Your task to perform on an android device: turn on data saver in the chrome app Image 0: 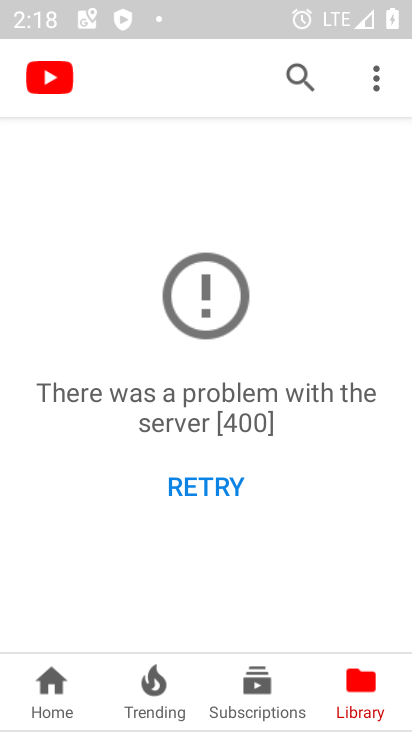
Step 0: press back button
Your task to perform on an android device: turn on data saver in the chrome app Image 1: 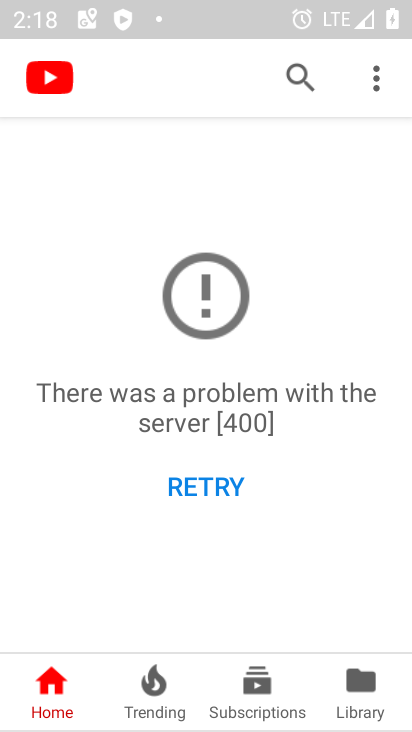
Step 1: press back button
Your task to perform on an android device: turn on data saver in the chrome app Image 2: 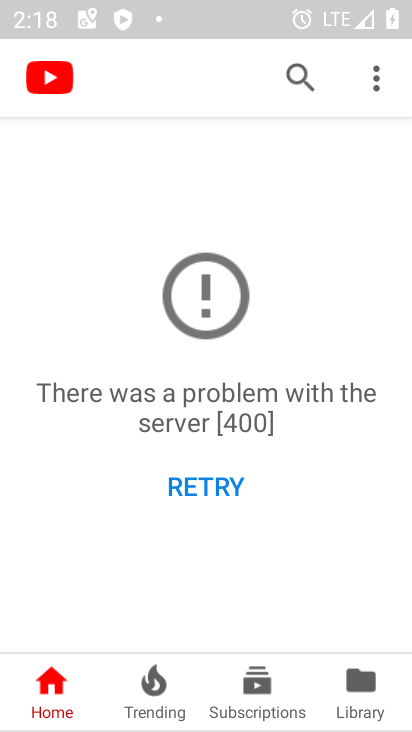
Step 2: press home button
Your task to perform on an android device: turn on data saver in the chrome app Image 3: 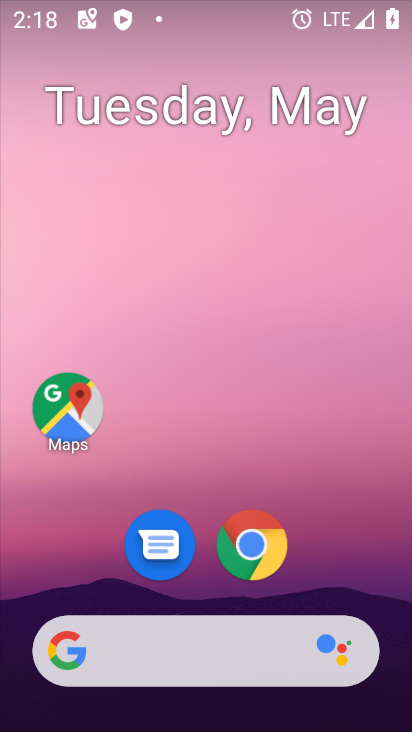
Step 3: drag from (354, 545) to (200, 30)
Your task to perform on an android device: turn on data saver in the chrome app Image 4: 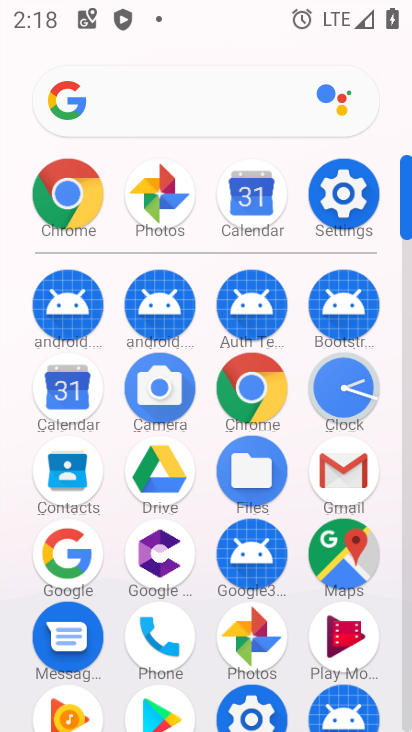
Step 4: drag from (12, 531) to (19, 206)
Your task to perform on an android device: turn on data saver in the chrome app Image 5: 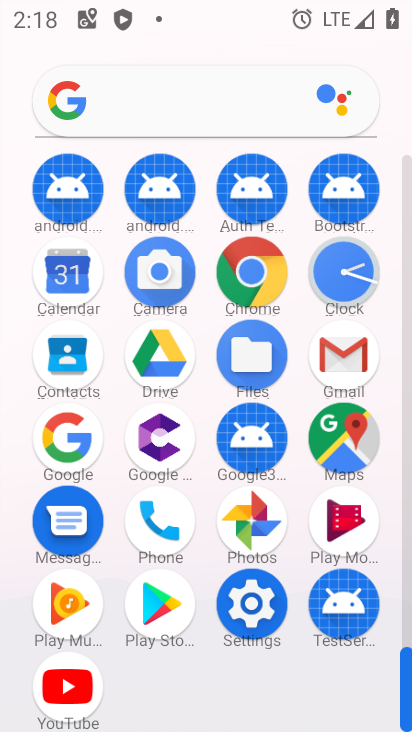
Step 5: click (256, 269)
Your task to perform on an android device: turn on data saver in the chrome app Image 6: 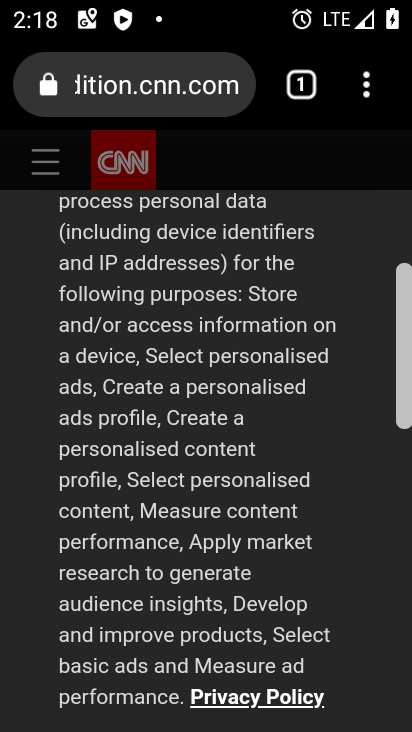
Step 6: drag from (366, 76) to (96, 584)
Your task to perform on an android device: turn on data saver in the chrome app Image 7: 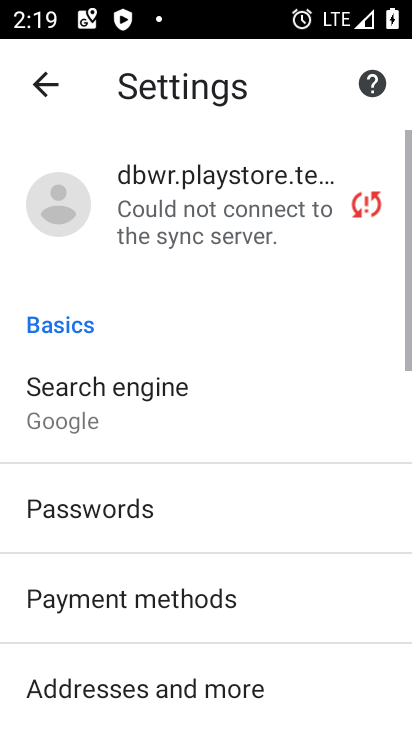
Step 7: drag from (248, 410) to (265, 148)
Your task to perform on an android device: turn on data saver in the chrome app Image 8: 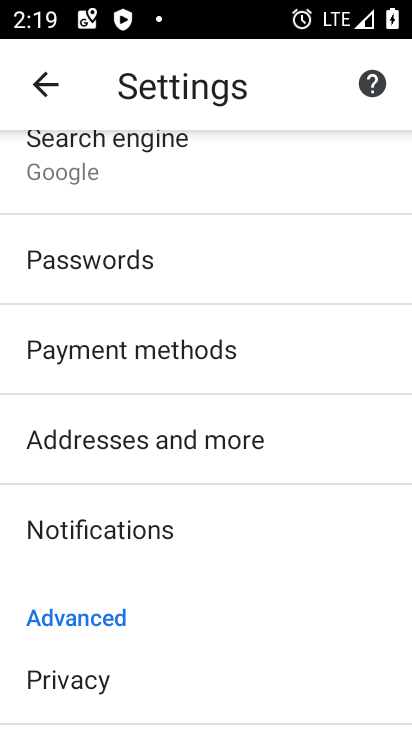
Step 8: drag from (293, 598) to (276, 131)
Your task to perform on an android device: turn on data saver in the chrome app Image 9: 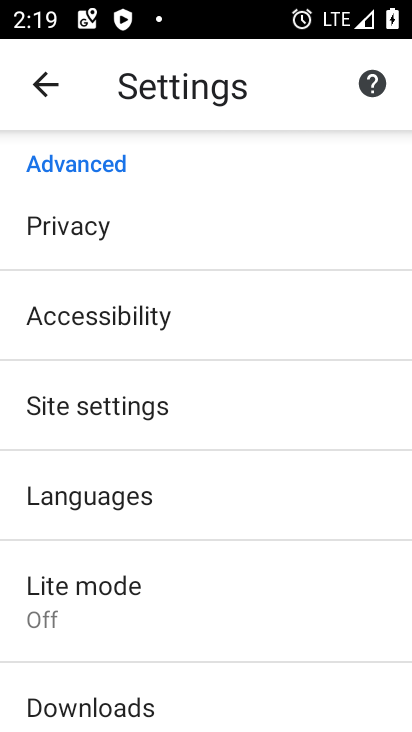
Step 9: click (134, 603)
Your task to perform on an android device: turn on data saver in the chrome app Image 10: 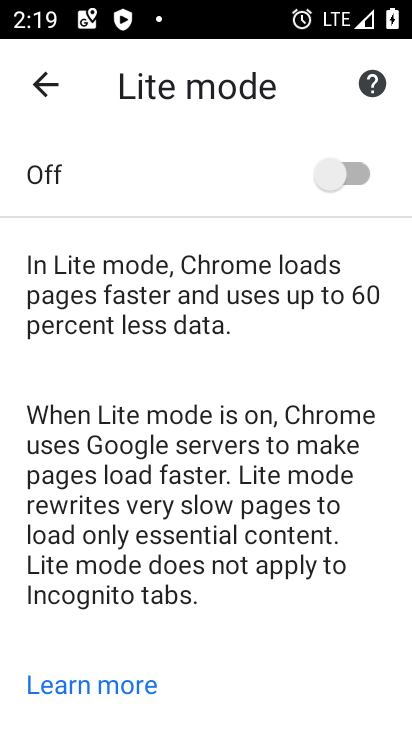
Step 10: click (341, 158)
Your task to perform on an android device: turn on data saver in the chrome app Image 11: 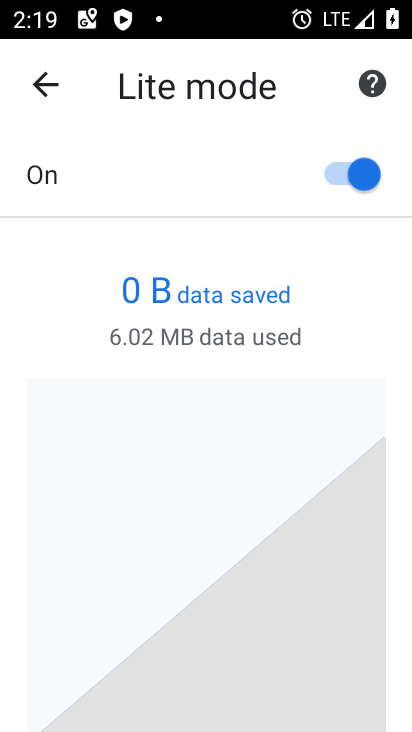
Step 11: task complete